Your task to perform on an android device: find photos in the google photos app Image 0: 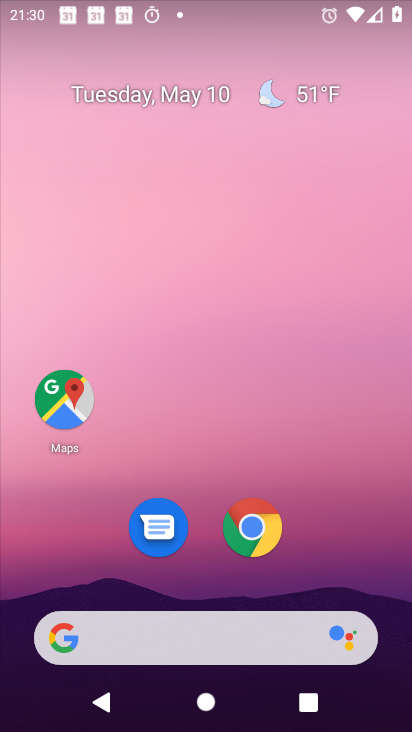
Step 0: drag from (212, 612) to (221, 0)
Your task to perform on an android device: find photos in the google photos app Image 1: 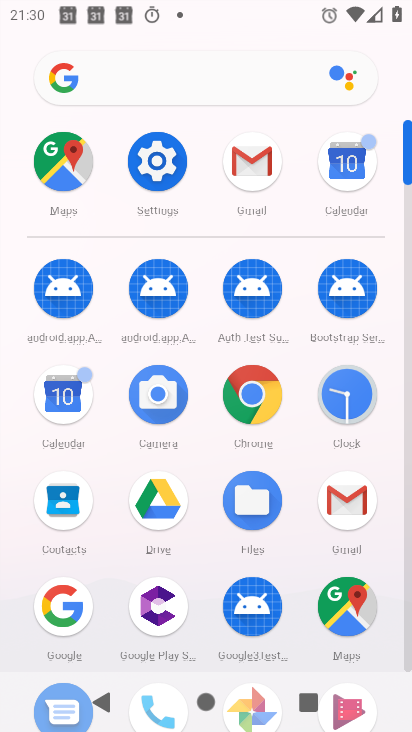
Step 1: drag from (208, 650) to (191, 168)
Your task to perform on an android device: find photos in the google photos app Image 2: 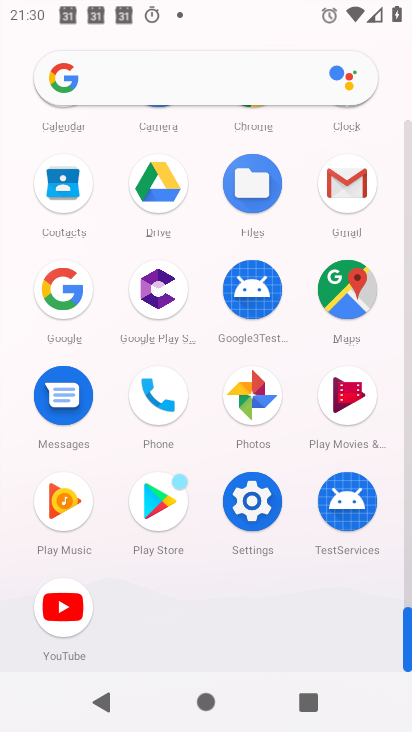
Step 2: click (244, 406)
Your task to perform on an android device: find photos in the google photos app Image 3: 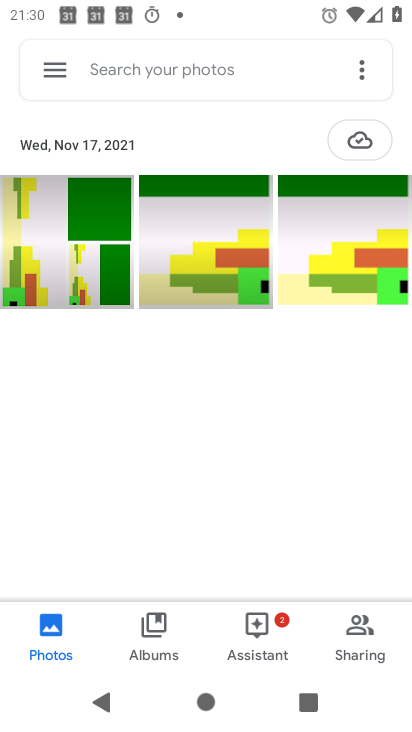
Step 3: task complete